Your task to perform on an android device: turn notification dots on Image 0: 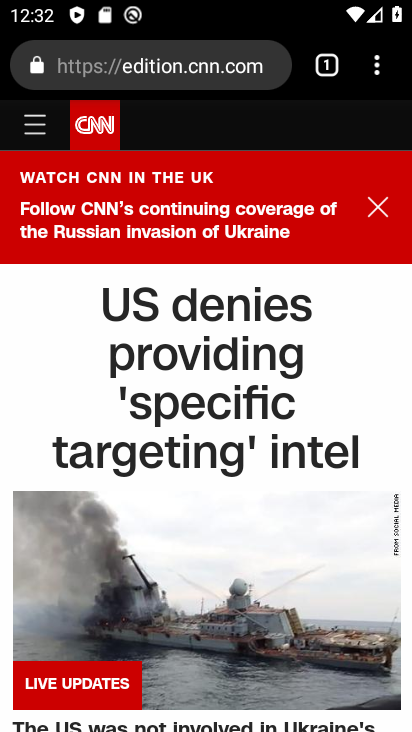
Step 0: press home button
Your task to perform on an android device: turn notification dots on Image 1: 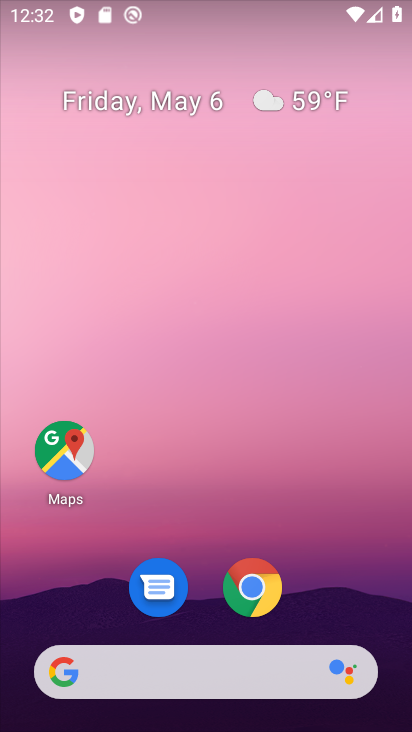
Step 1: drag from (218, 669) to (231, 58)
Your task to perform on an android device: turn notification dots on Image 2: 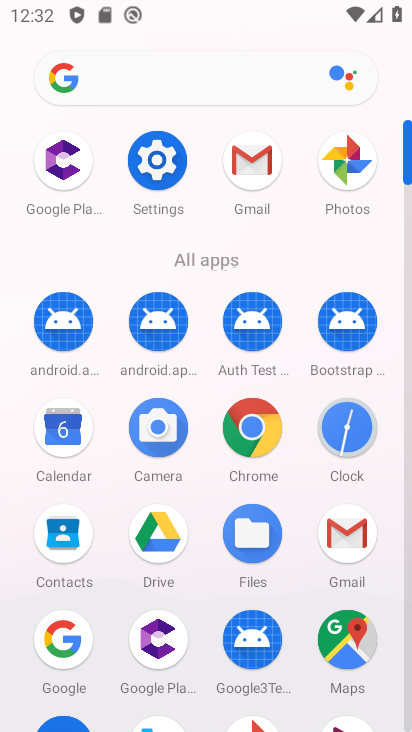
Step 2: click (156, 165)
Your task to perform on an android device: turn notification dots on Image 3: 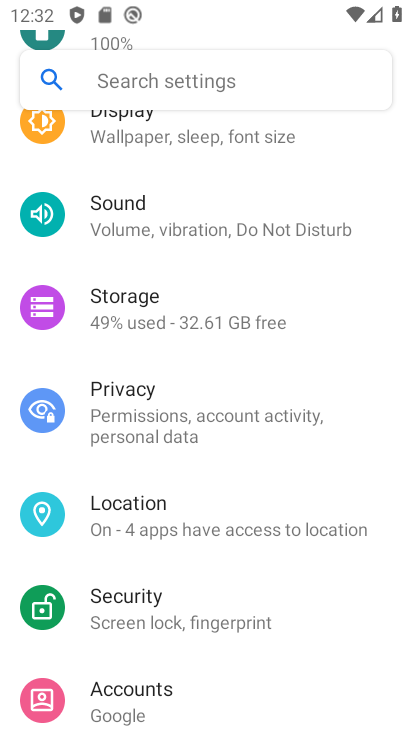
Step 3: drag from (216, 218) to (296, 484)
Your task to perform on an android device: turn notification dots on Image 4: 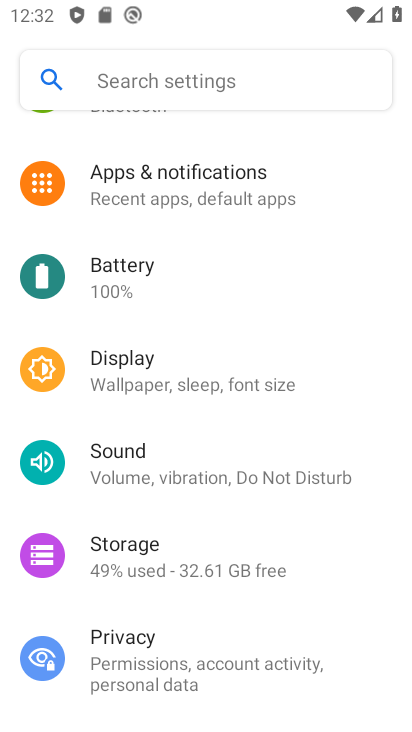
Step 4: click (261, 173)
Your task to perform on an android device: turn notification dots on Image 5: 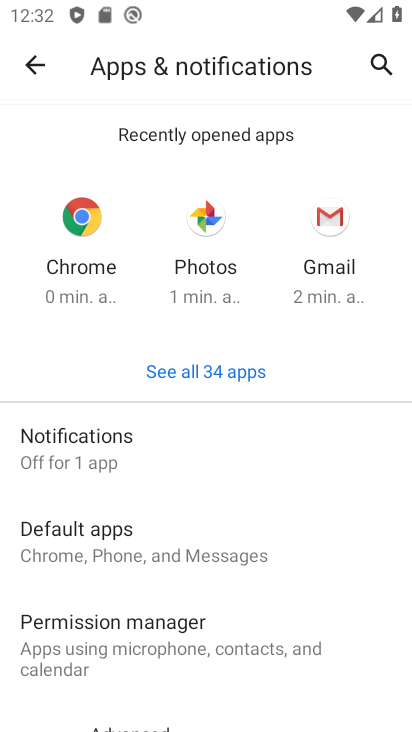
Step 5: click (162, 438)
Your task to perform on an android device: turn notification dots on Image 6: 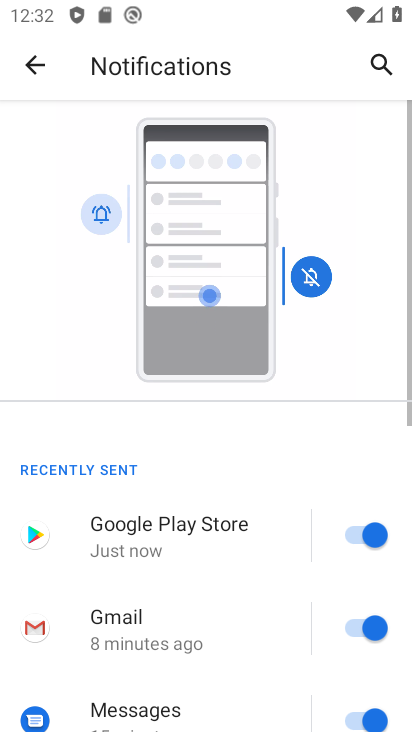
Step 6: drag from (198, 562) to (150, 24)
Your task to perform on an android device: turn notification dots on Image 7: 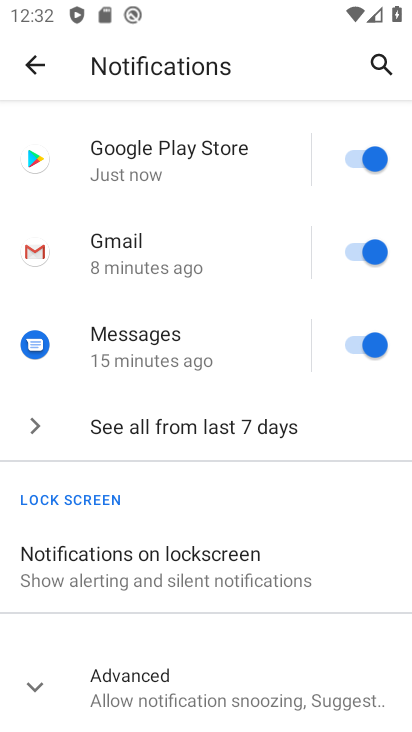
Step 7: click (226, 713)
Your task to perform on an android device: turn notification dots on Image 8: 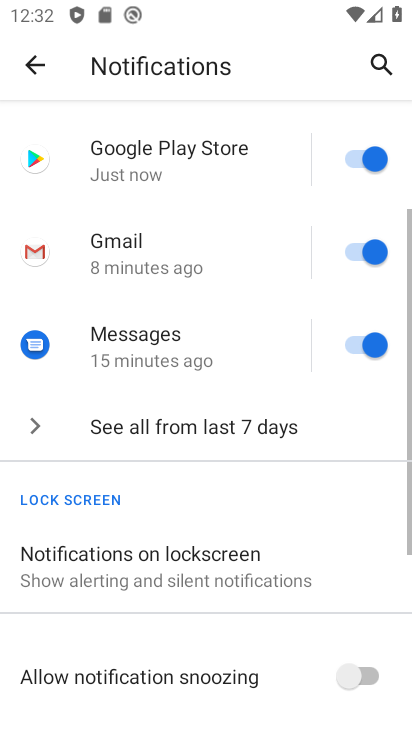
Step 8: task complete